Your task to perform on an android device: turn on location history Image 0: 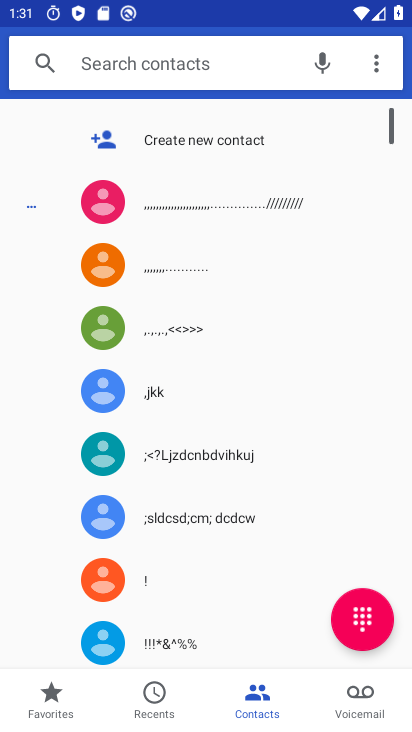
Step 0: drag from (160, 471) to (256, 305)
Your task to perform on an android device: turn on location history Image 1: 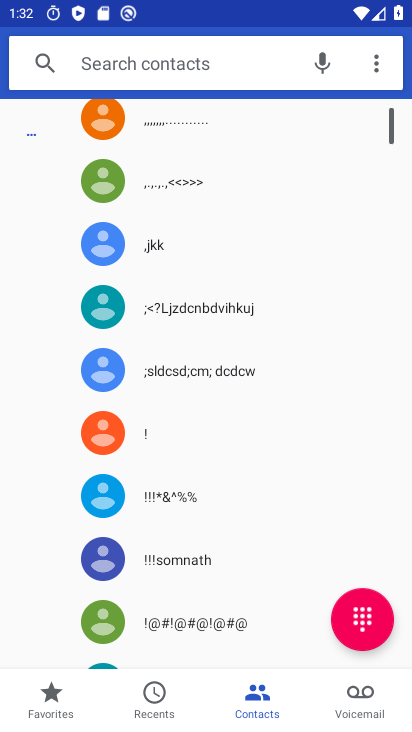
Step 1: drag from (194, 538) to (249, 392)
Your task to perform on an android device: turn on location history Image 2: 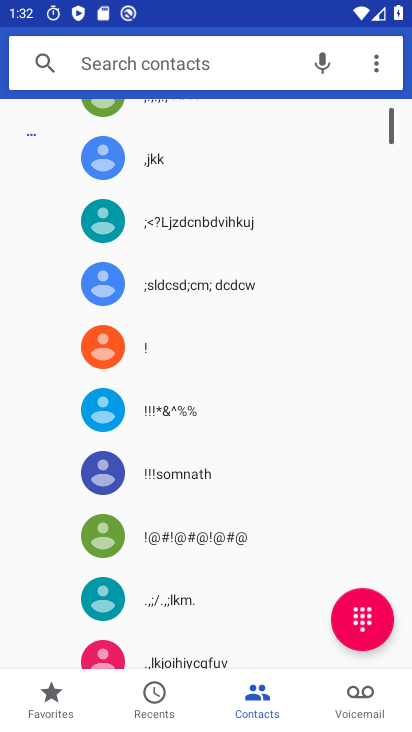
Step 2: press home button
Your task to perform on an android device: turn on location history Image 3: 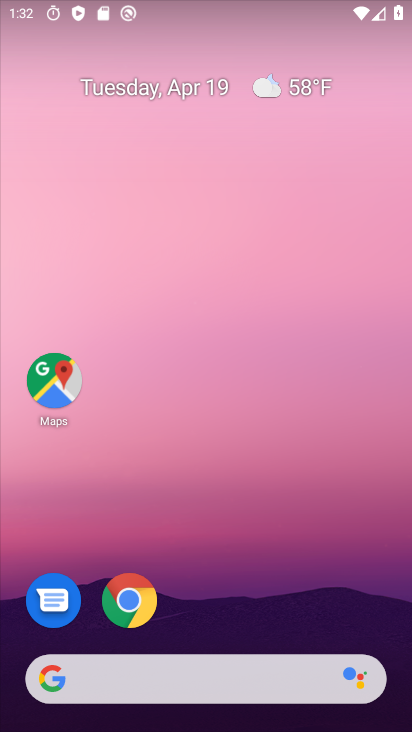
Step 3: drag from (228, 714) to (361, 175)
Your task to perform on an android device: turn on location history Image 4: 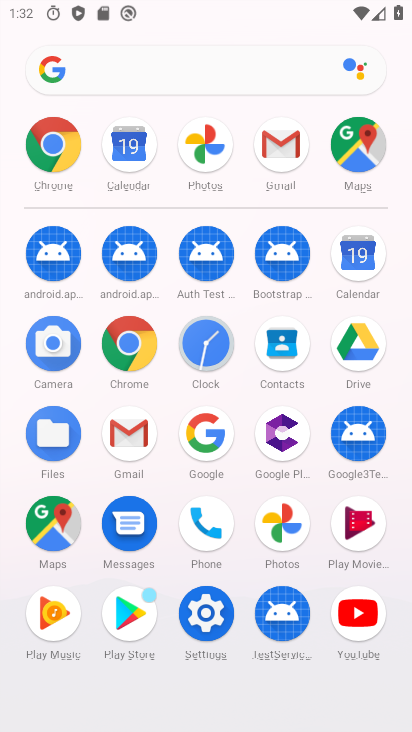
Step 4: click (199, 608)
Your task to perform on an android device: turn on location history Image 5: 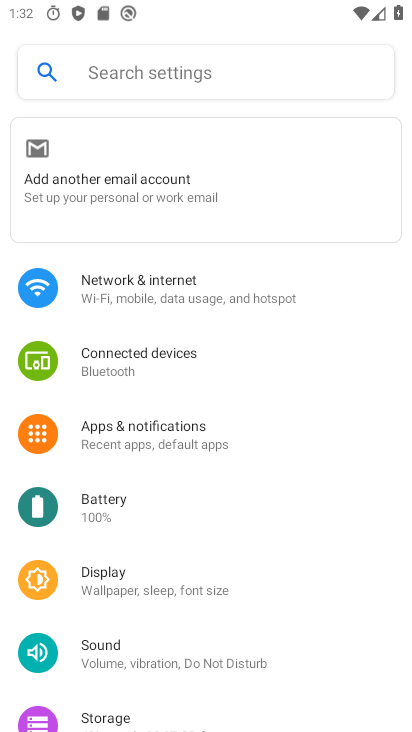
Step 5: click (177, 74)
Your task to perform on an android device: turn on location history Image 6: 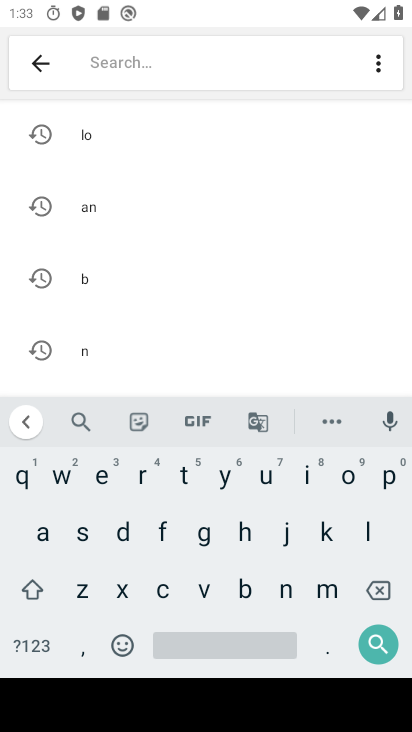
Step 6: click (131, 147)
Your task to perform on an android device: turn on location history Image 7: 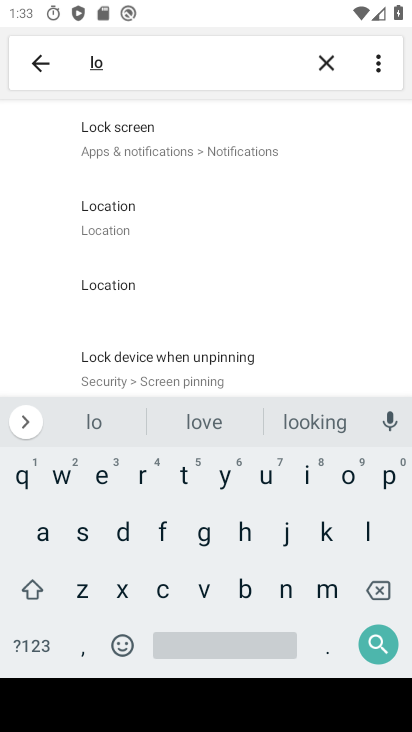
Step 7: click (121, 210)
Your task to perform on an android device: turn on location history Image 8: 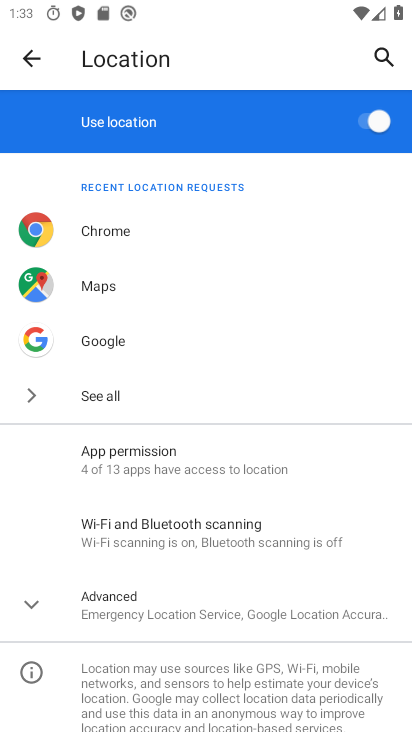
Step 8: click (81, 593)
Your task to perform on an android device: turn on location history Image 9: 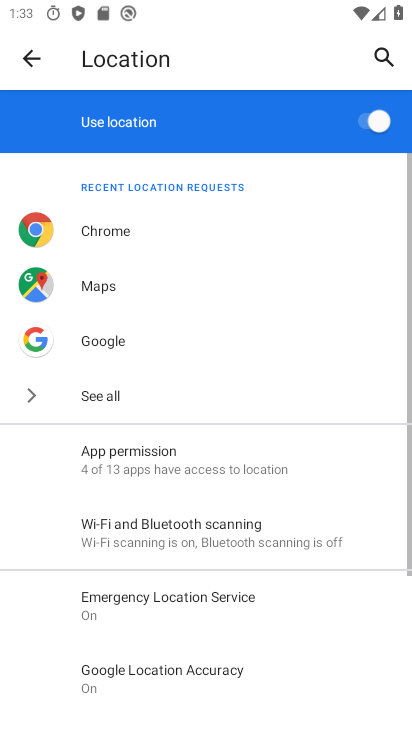
Step 9: drag from (116, 540) to (166, 359)
Your task to perform on an android device: turn on location history Image 10: 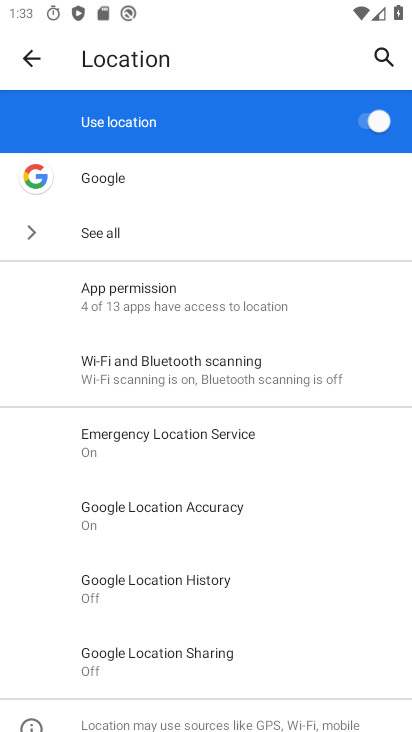
Step 10: click (163, 583)
Your task to perform on an android device: turn on location history Image 11: 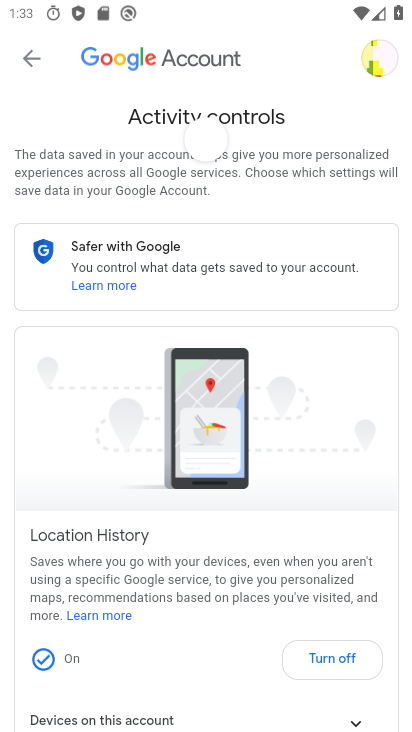
Step 11: drag from (256, 567) to (327, 377)
Your task to perform on an android device: turn on location history Image 12: 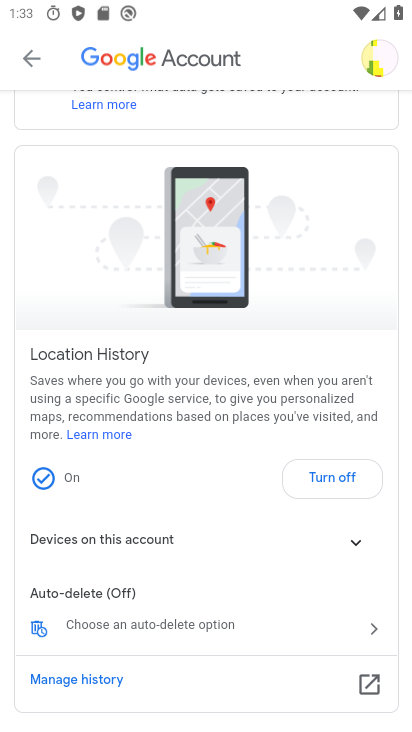
Step 12: click (357, 482)
Your task to perform on an android device: turn on location history Image 13: 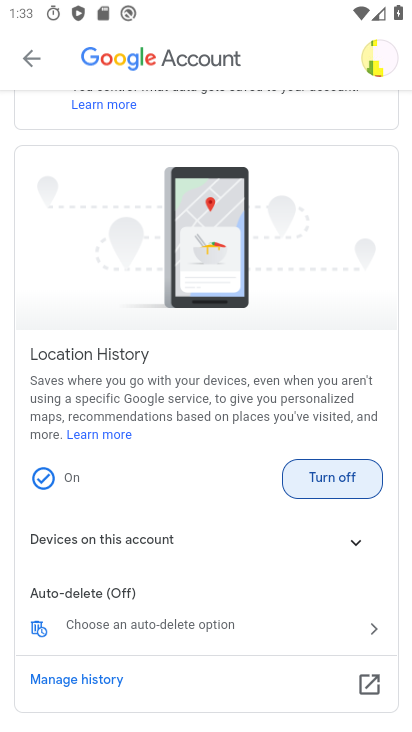
Step 13: click (329, 479)
Your task to perform on an android device: turn on location history Image 14: 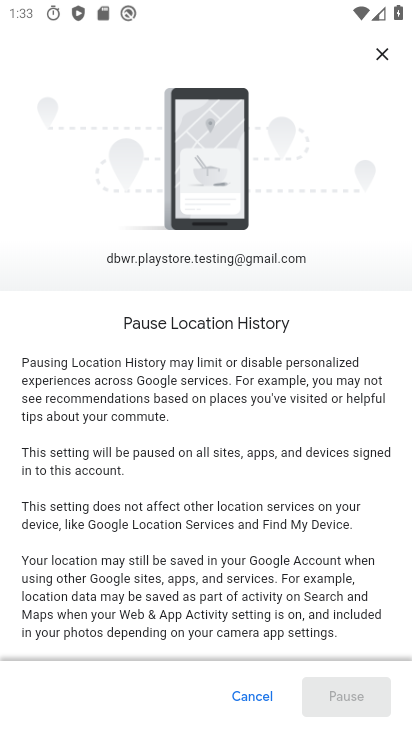
Step 14: drag from (255, 559) to (335, 116)
Your task to perform on an android device: turn on location history Image 15: 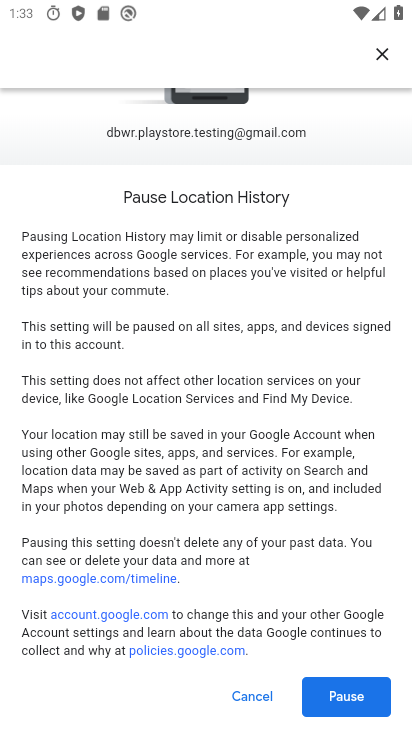
Step 15: drag from (207, 539) to (294, 229)
Your task to perform on an android device: turn on location history Image 16: 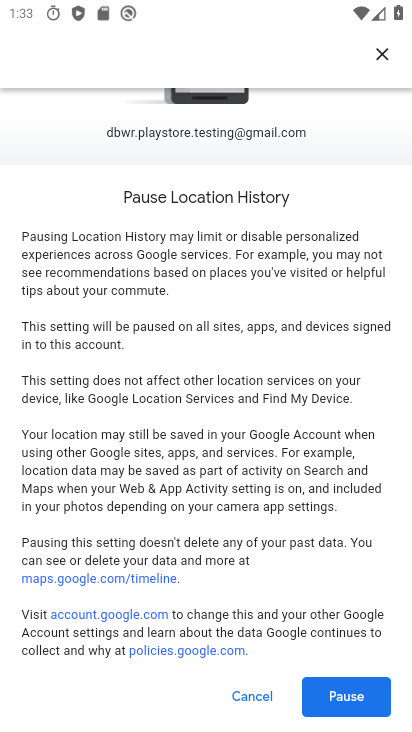
Step 16: click (357, 690)
Your task to perform on an android device: turn on location history Image 17: 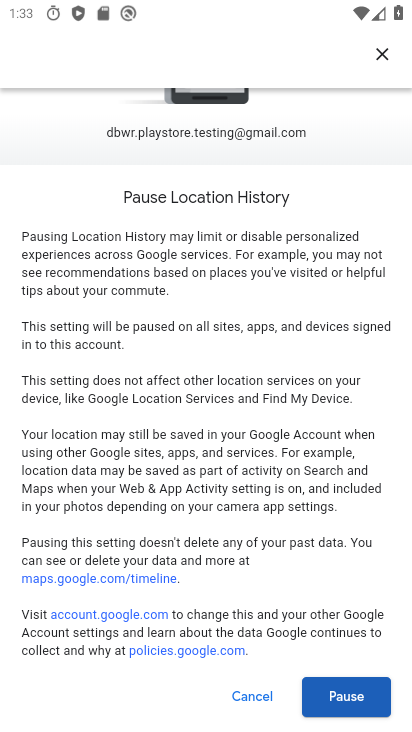
Step 17: click (348, 705)
Your task to perform on an android device: turn on location history Image 18: 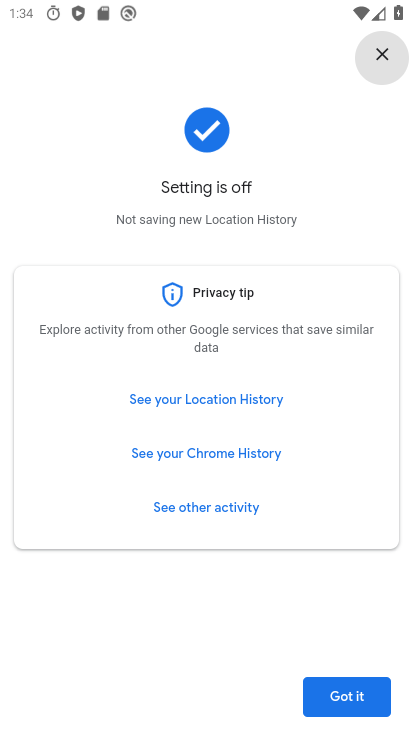
Step 18: click (391, 54)
Your task to perform on an android device: turn on location history Image 19: 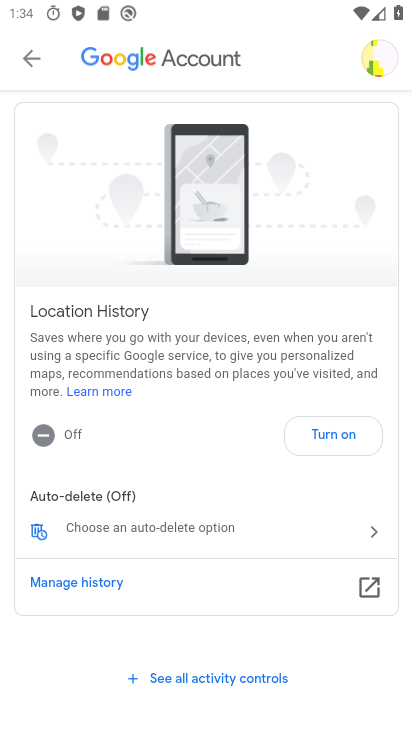
Step 19: task complete